Your task to perform on an android device: Go to calendar. Show me events next week Image 0: 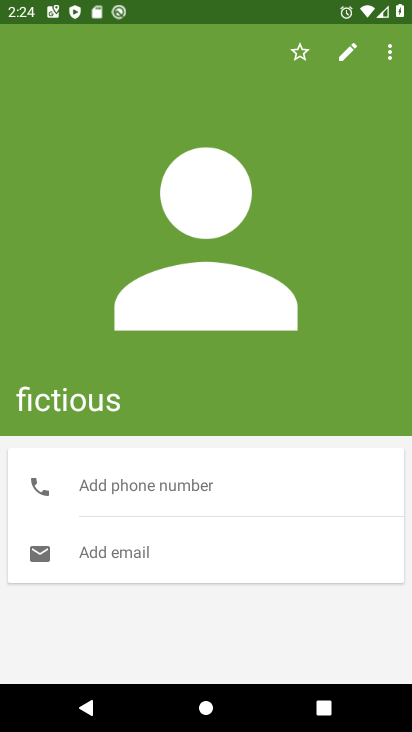
Step 0: press home button
Your task to perform on an android device: Go to calendar. Show me events next week Image 1: 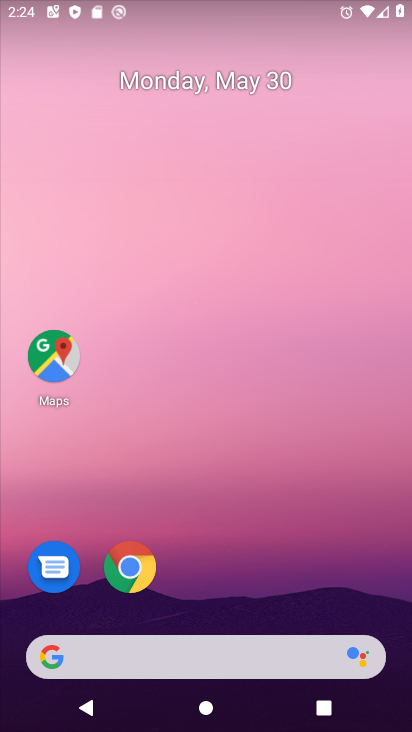
Step 1: drag from (222, 606) to (262, 30)
Your task to perform on an android device: Go to calendar. Show me events next week Image 2: 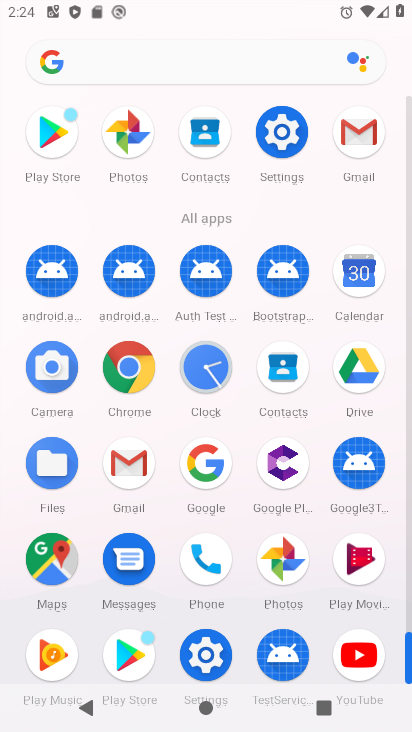
Step 2: click (366, 289)
Your task to perform on an android device: Go to calendar. Show me events next week Image 3: 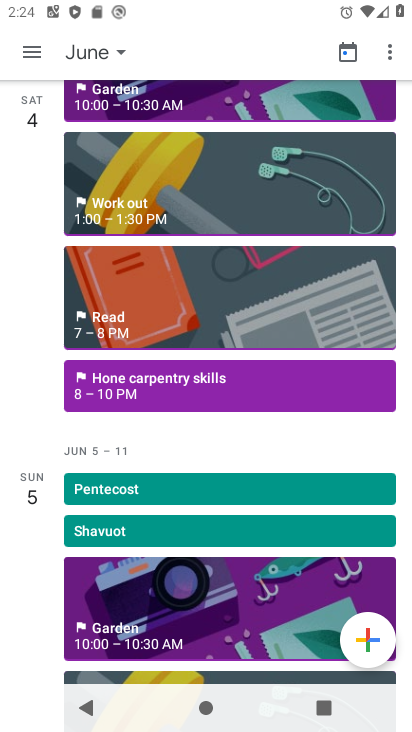
Step 3: click (34, 55)
Your task to perform on an android device: Go to calendar. Show me events next week Image 4: 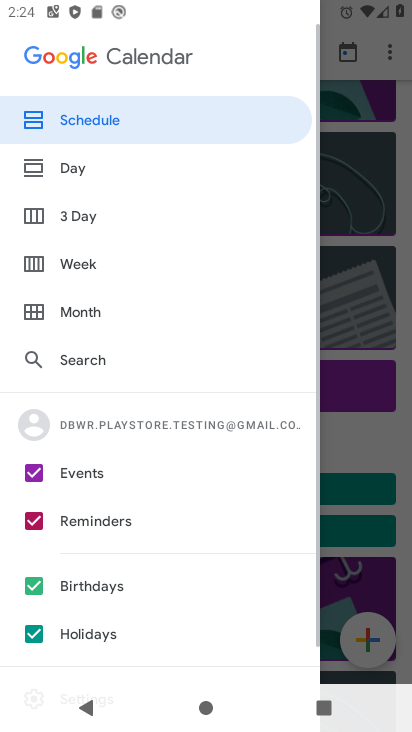
Step 4: click (78, 518)
Your task to perform on an android device: Go to calendar. Show me events next week Image 5: 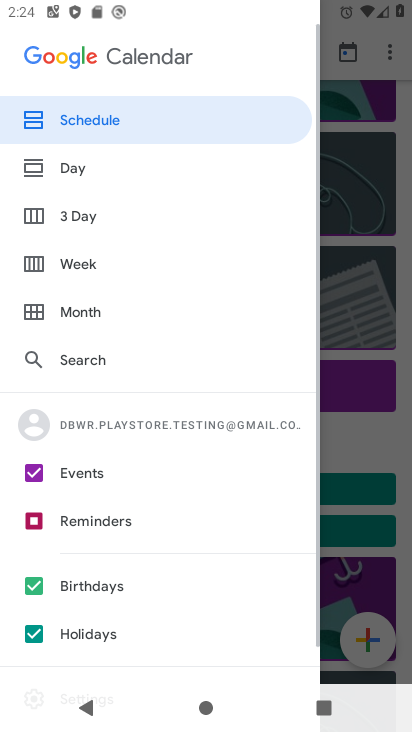
Step 5: click (83, 594)
Your task to perform on an android device: Go to calendar. Show me events next week Image 6: 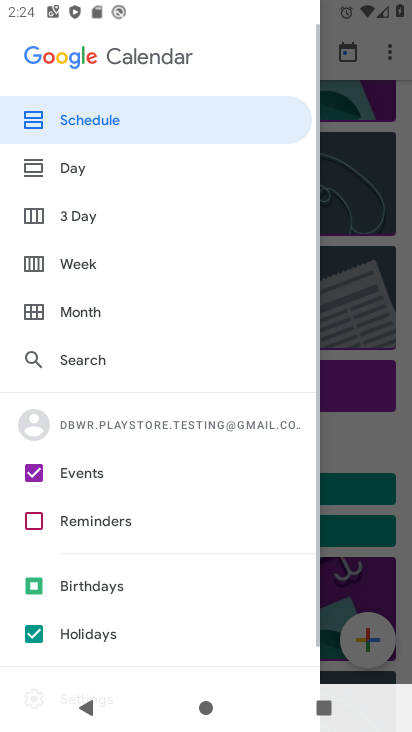
Step 6: click (91, 649)
Your task to perform on an android device: Go to calendar. Show me events next week Image 7: 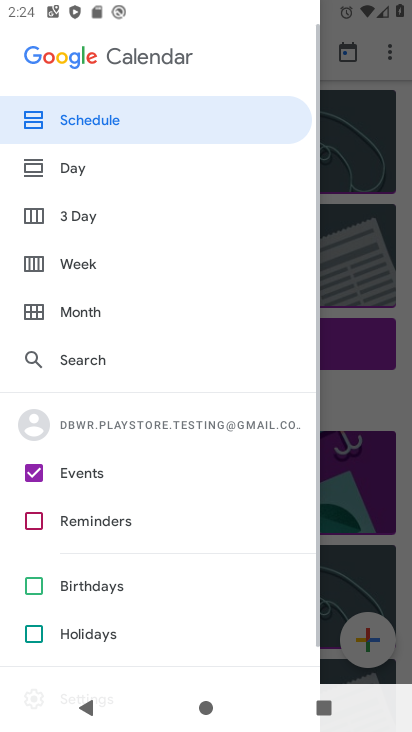
Step 7: click (85, 270)
Your task to perform on an android device: Go to calendar. Show me events next week Image 8: 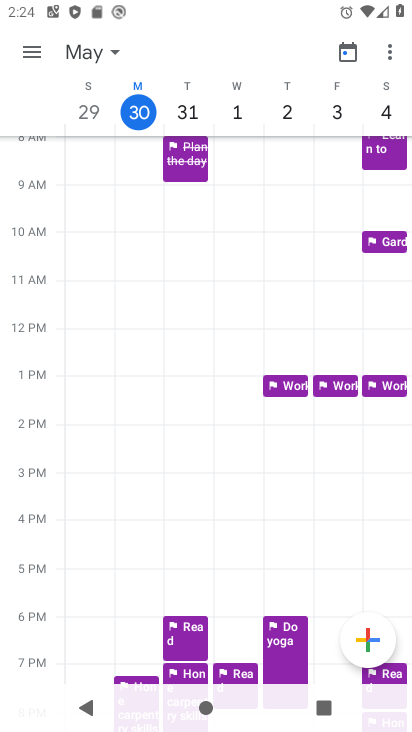
Step 8: task complete